Your task to perform on an android device: Open Chrome and go to settings Image 0: 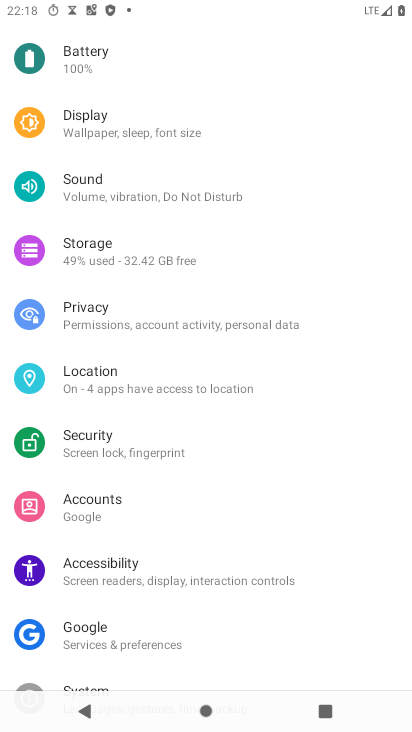
Step 0: press back button
Your task to perform on an android device: Open Chrome and go to settings Image 1: 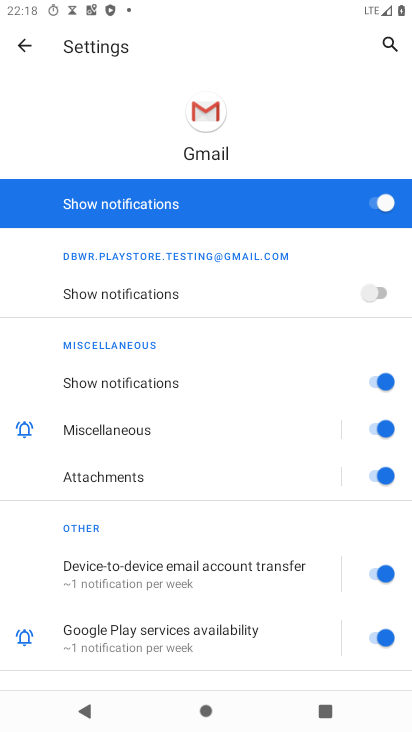
Step 1: press back button
Your task to perform on an android device: Open Chrome and go to settings Image 2: 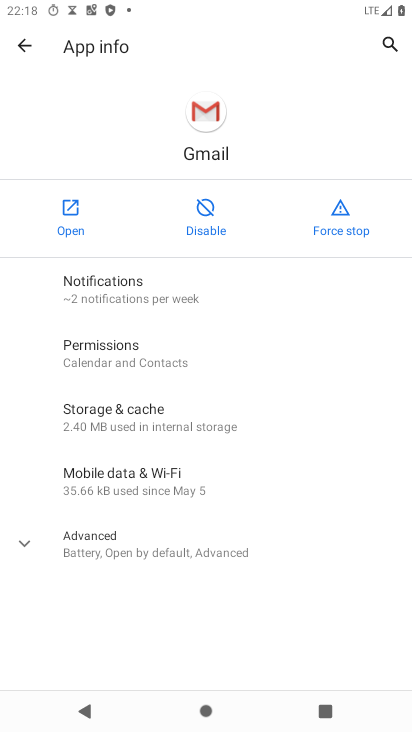
Step 2: press back button
Your task to perform on an android device: Open Chrome and go to settings Image 3: 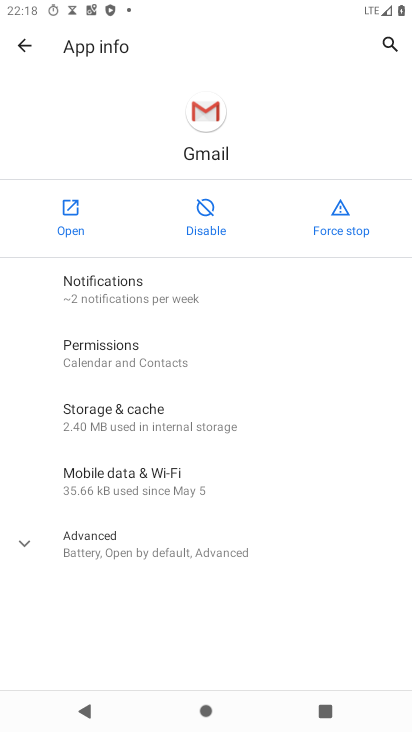
Step 3: press back button
Your task to perform on an android device: Open Chrome and go to settings Image 4: 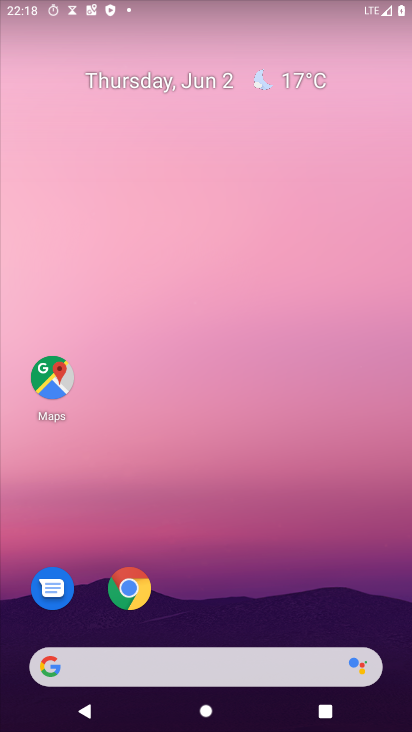
Step 4: click (128, 582)
Your task to perform on an android device: Open Chrome and go to settings Image 5: 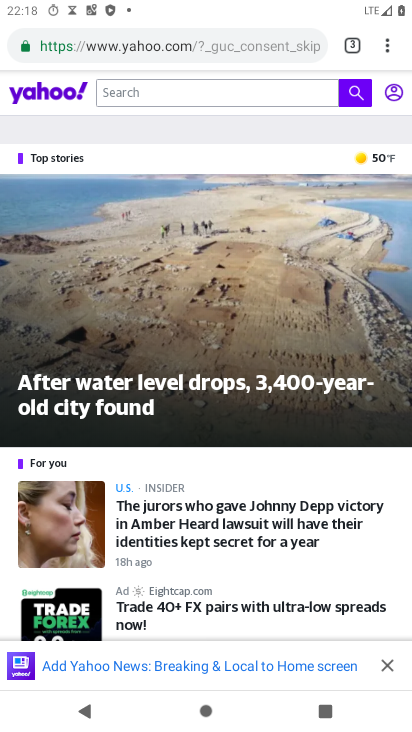
Step 5: task complete